Your task to perform on an android device: Go to display settings Image 0: 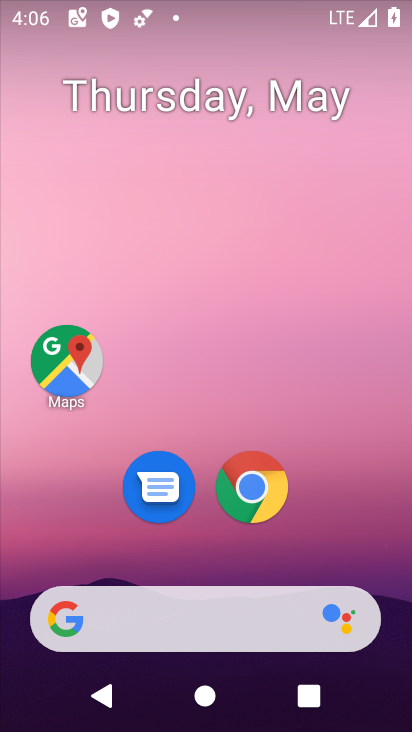
Step 0: drag from (248, 608) to (337, 178)
Your task to perform on an android device: Go to display settings Image 1: 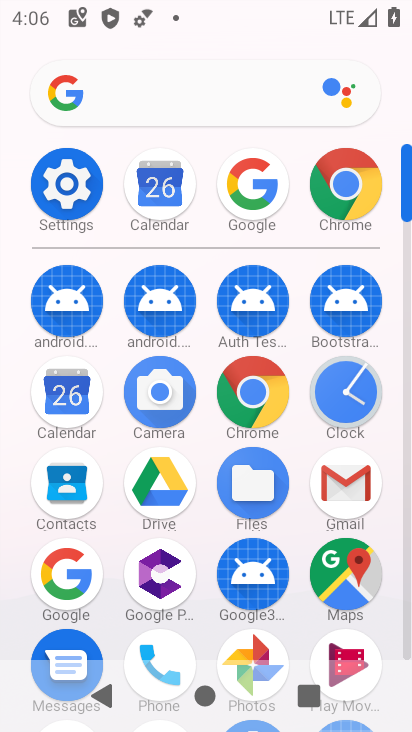
Step 1: click (88, 204)
Your task to perform on an android device: Go to display settings Image 2: 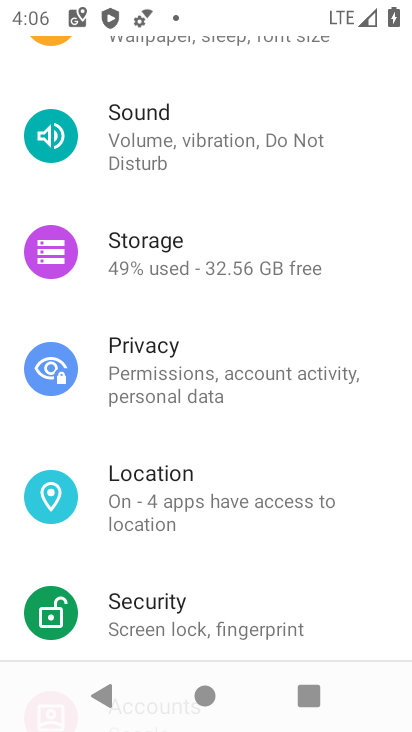
Step 2: drag from (195, 313) to (148, 632)
Your task to perform on an android device: Go to display settings Image 3: 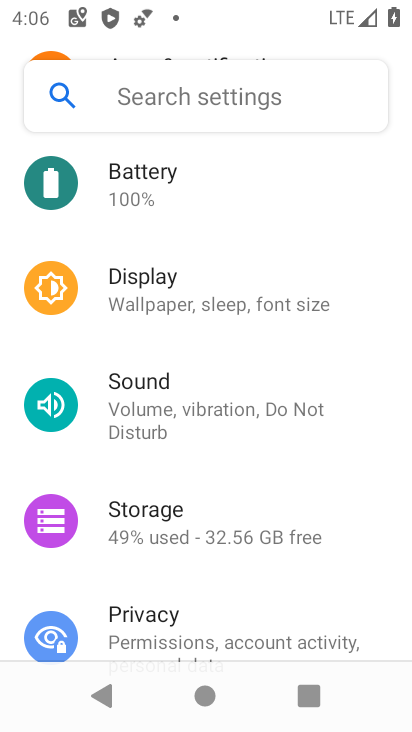
Step 3: click (234, 290)
Your task to perform on an android device: Go to display settings Image 4: 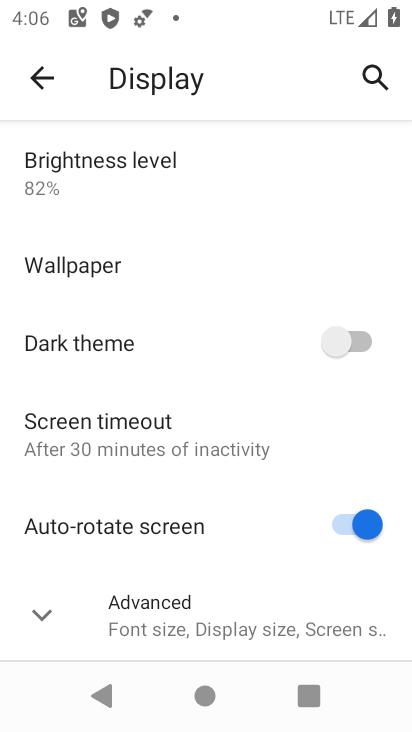
Step 4: task complete